Your task to perform on an android device: find snoozed emails in the gmail app Image 0: 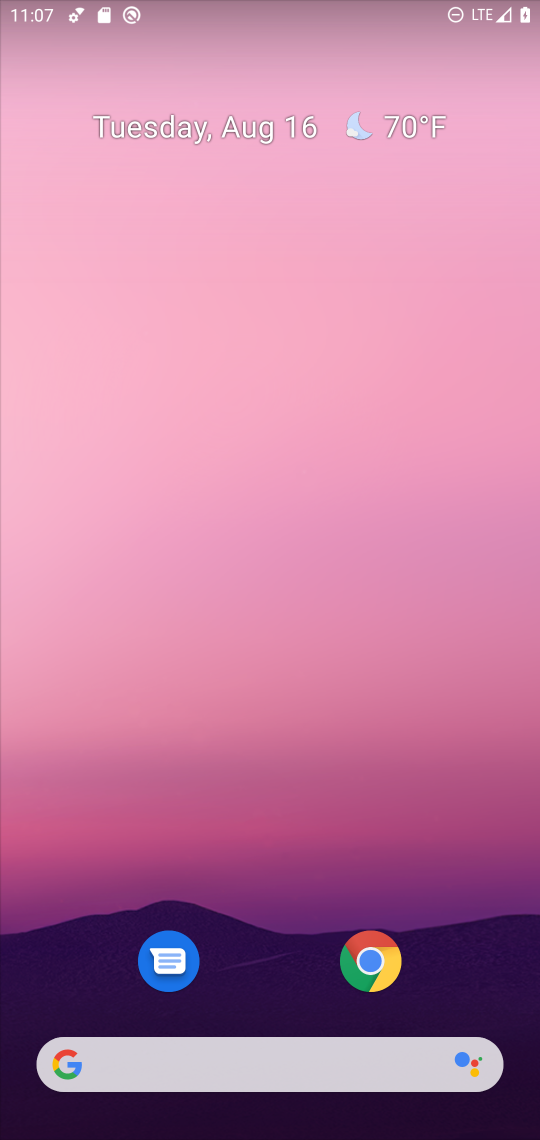
Step 0: drag from (263, 992) to (466, 49)
Your task to perform on an android device: find snoozed emails in the gmail app Image 1: 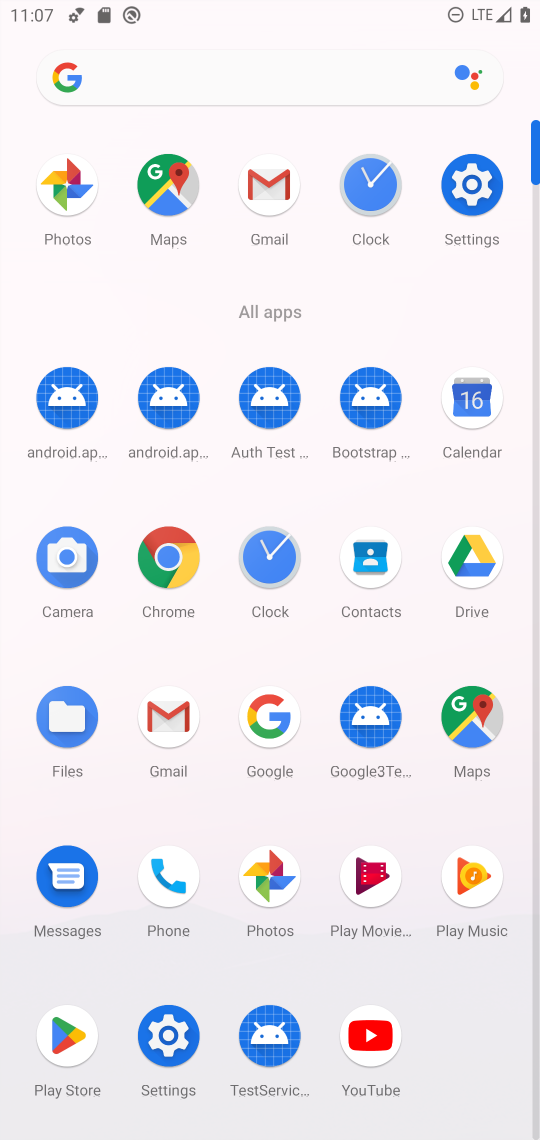
Step 1: click (155, 755)
Your task to perform on an android device: find snoozed emails in the gmail app Image 2: 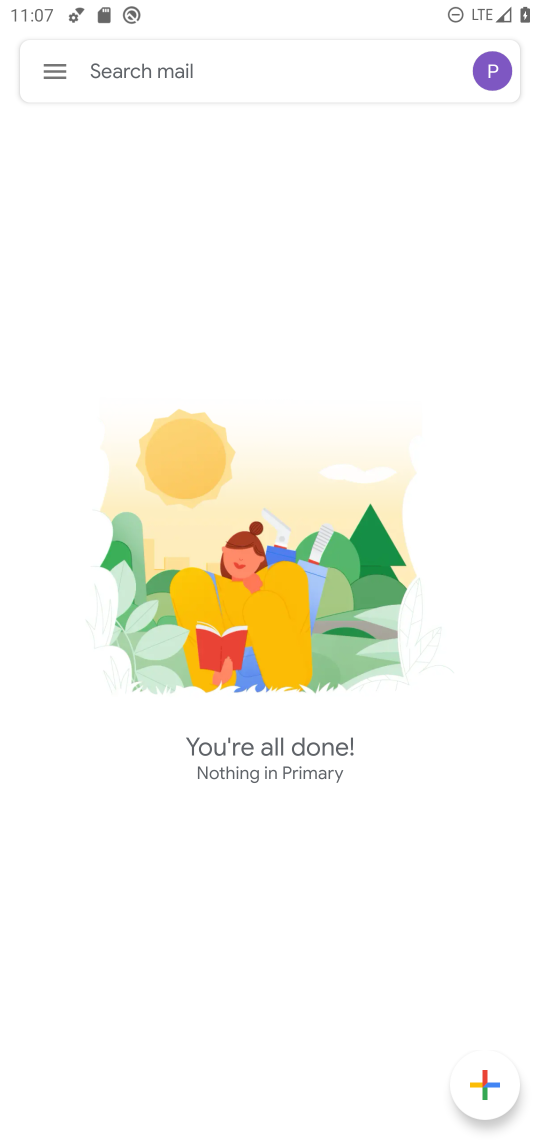
Step 2: click (44, 87)
Your task to perform on an android device: find snoozed emails in the gmail app Image 3: 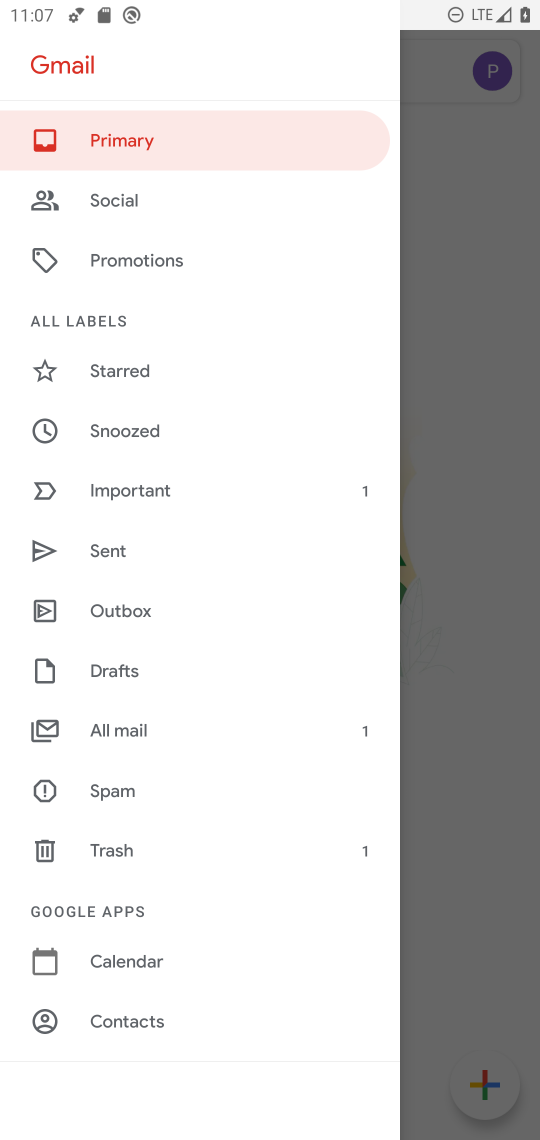
Step 3: click (117, 444)
Your task to perform on an android device: find snoozed emails in the gmail app Image 4: 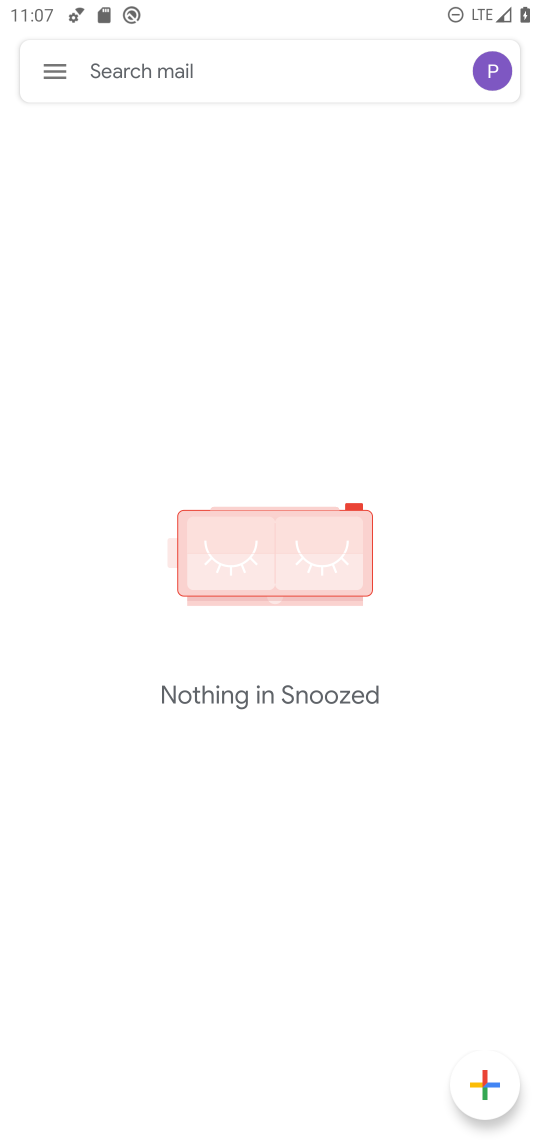
Step 4: task complete